Your task to perform on an android device: Open Chrome and go to settings Image 0: 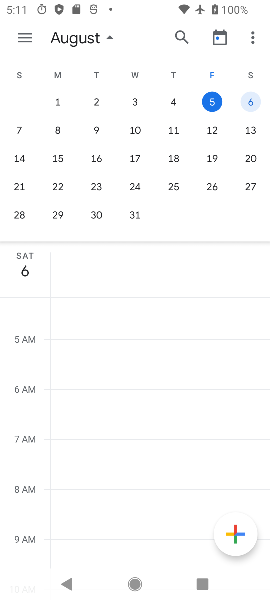
Step 0: press back button
Your task to perform on an android device: Open Chrome and go to settings Image 1: 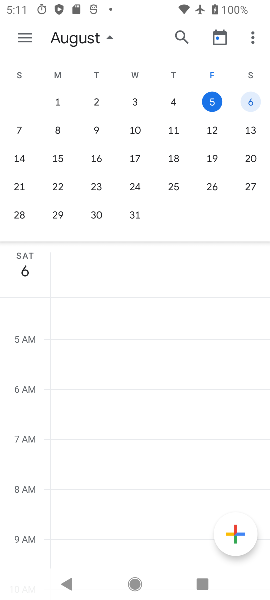
Step 1: press back button
Your task to perform on an android device: Open Chrome and go to settings Image 2: 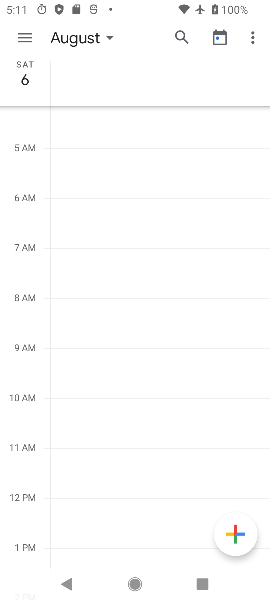
Step 2: press back button
Your task to perform on an android device: Open Chrome and go to settings Image 3: 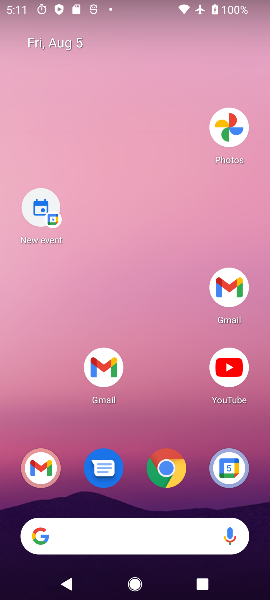
Step 3: drag from (155, 307) to (165, 6)
Your task to perform on an android device: Open Chrome and go to settings Image 4: 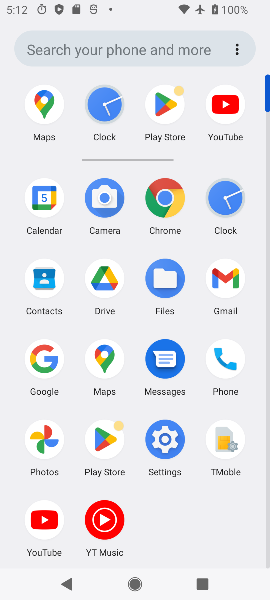
Step 4: click (166, 208)
Your task to perform on an android device: Open Chrome and go to settings Image 5: 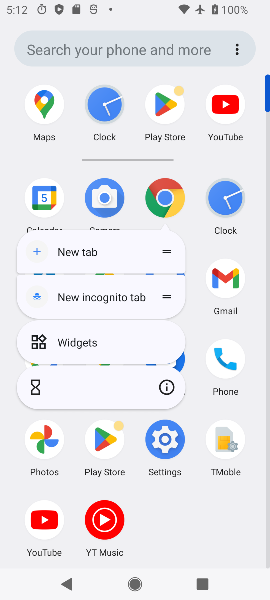
Step 5: click (168, 194)
Your task to perform on an android device: Open Chrome and go to settings Image 6: 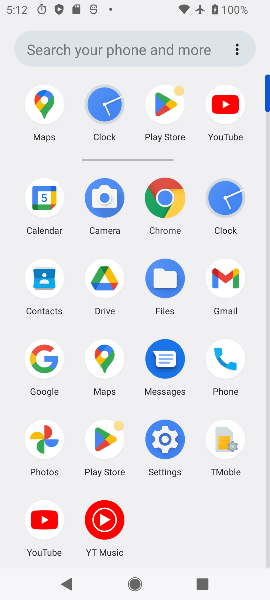
Step 6: click (168, 194)
Your task to perform on an android device: Open Chrome and go to settings Image 7: 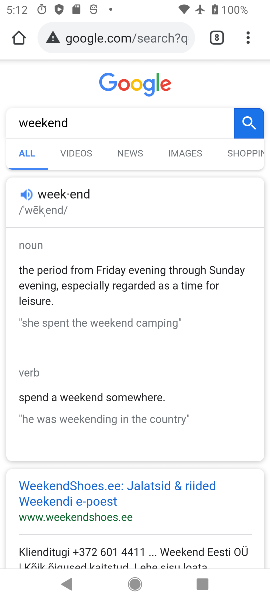
Step 7: click (238, 31)
Your task to perform on an android device: Open Chrome and go to settings Image 8: 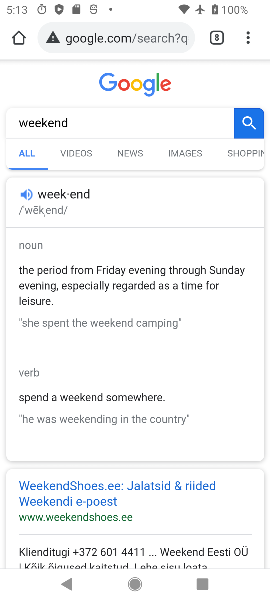
Step 8: drag from (247, 41) to (129, 507)
Your task to perform on an android device: Open Chrome and go to settings Image 9: 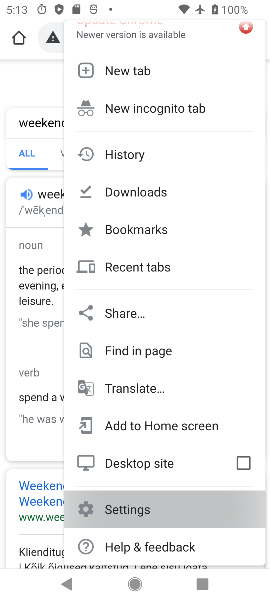
Step 9: click (129, 507)
Your task to perform on an android device: Open Chrome and go to settings Image 10: 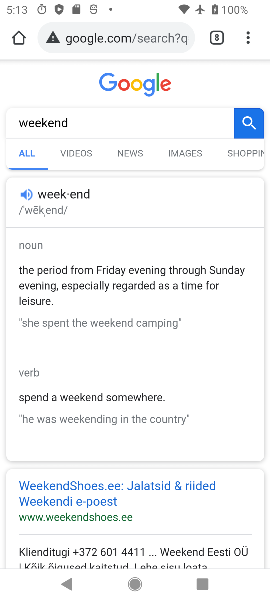
Step 10: click (130, 507)
Your task to perform on an android device: Open Chrome and go to settings Image 11: 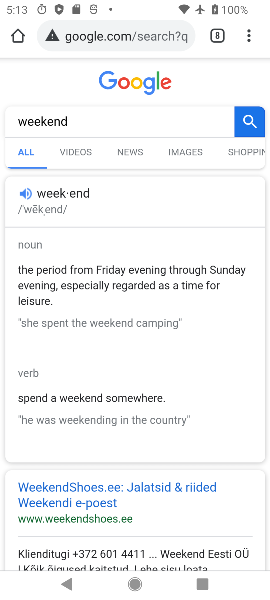
Step 11: click (130, 507)
Your task to perform on an android device: Open Chrome and go to settings Image 12: 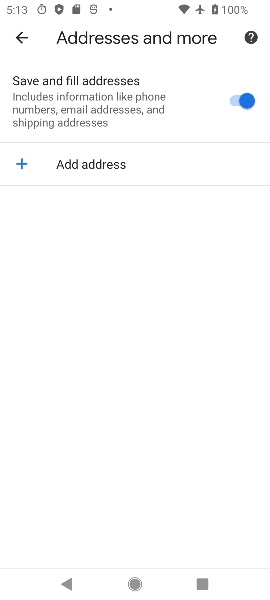
Step 12: task complete